Your task to perform on an android device: turn on notifications settings in the gmail app Image 0: 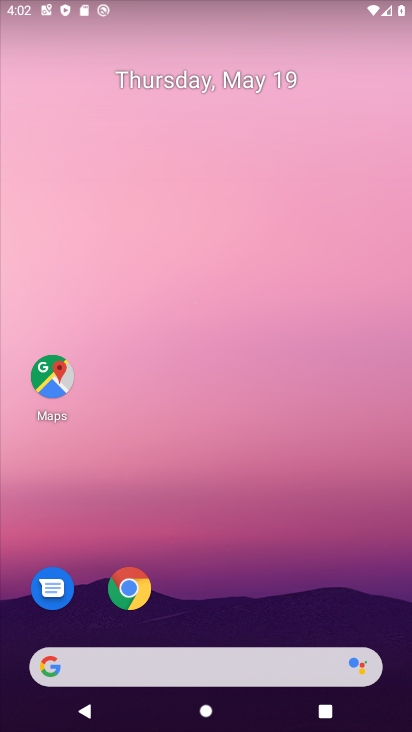
Step 0: drag from (241, 611) to (202, 14)
Your task to perform on an android device: turn on notifications settings in the gmail app Image 1: 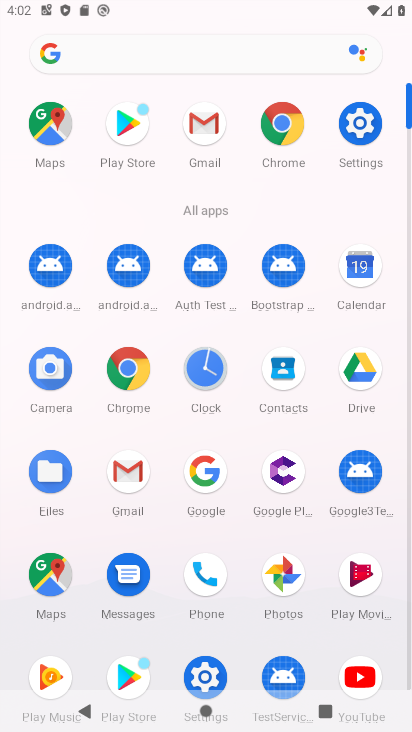
Step 1: click (207, 144)
Your task to perform on an android device: turn on notifications settings in the gmail app Image 2: 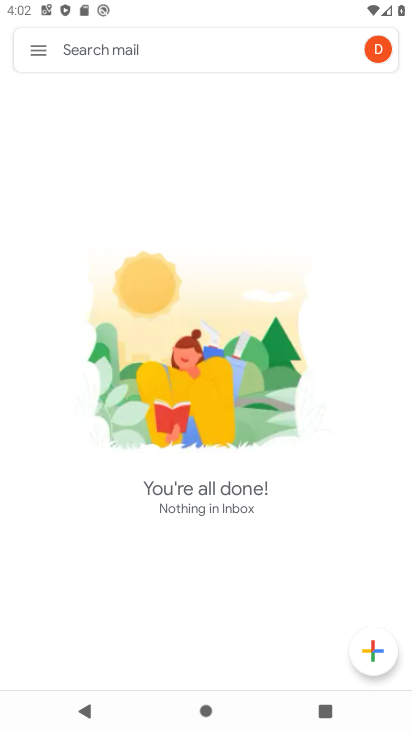
Step 2: click (42, 58)
Your task to perform on an android device: turn on notifications settings in the gmail app Image 3: 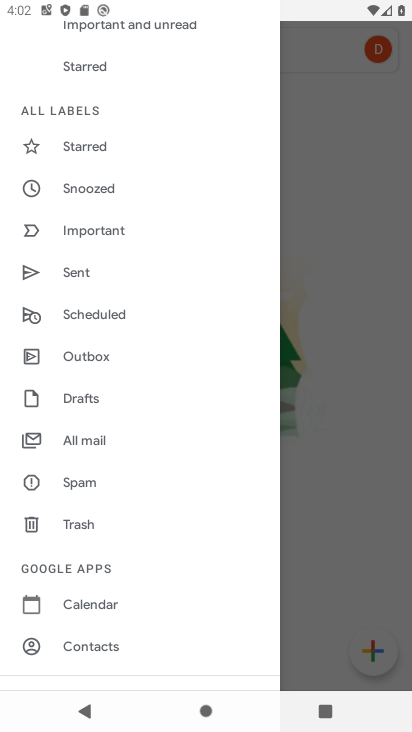
Step 3: drag from (59, 611) to (152, 328)
Your task to perform on an android device: turn on notifications settings in the gmail app Image 4: 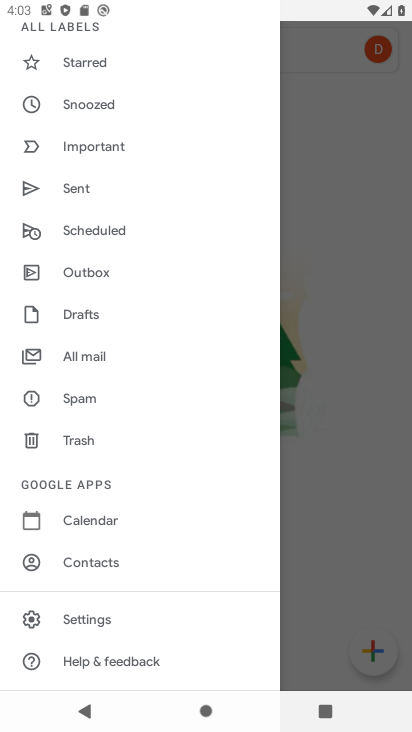
Step 4: click (86, 614)
Your task to perform on an android device: turn on notifications settings in the gmail app Image 5: 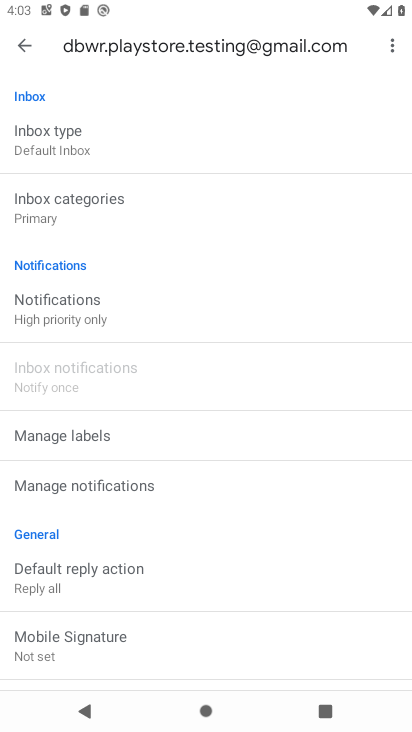
Step 5: click (113, 313)
Your task to perform on an android device: turn on notifications settings in the gmail app Image 6: 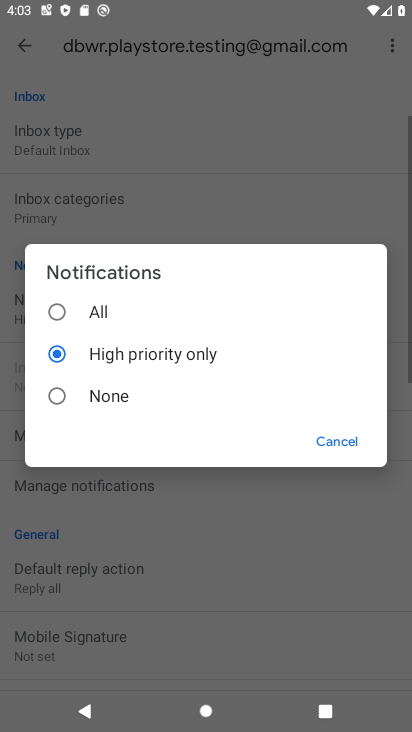
Step 6: click (113, 313)
Your task to perform on an android device: turn on notifications settings in the gmail app Image 7: 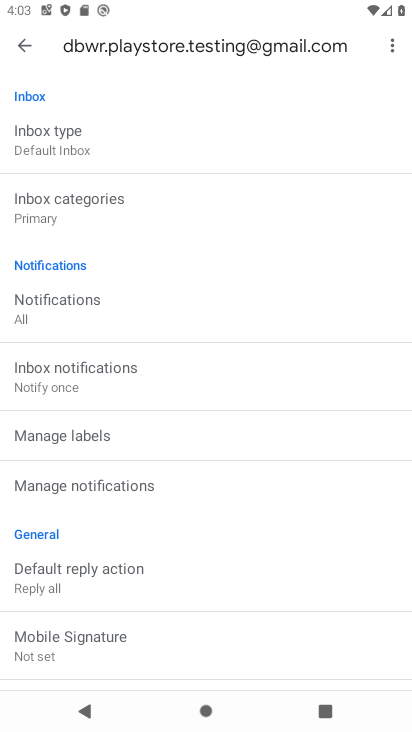
Step 7: task complete